Your task to perform on an android device: Search for Italian restaurants on Maps Image 0: 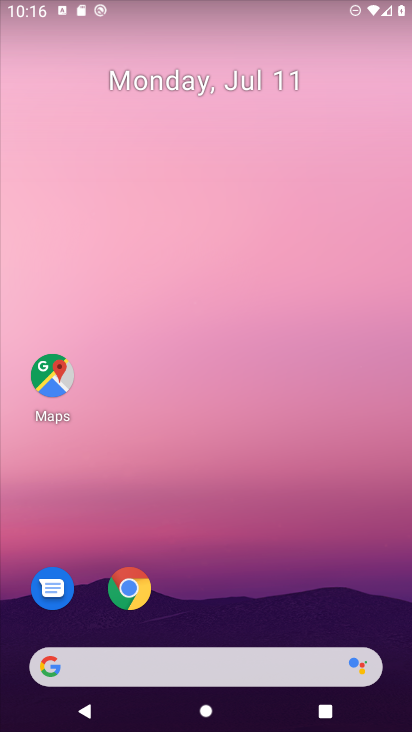
Step 0: drag from (396, 668) to (182, 27)
Your task to perform on an android device: Search for Italian restaurants on Maps Image 1: 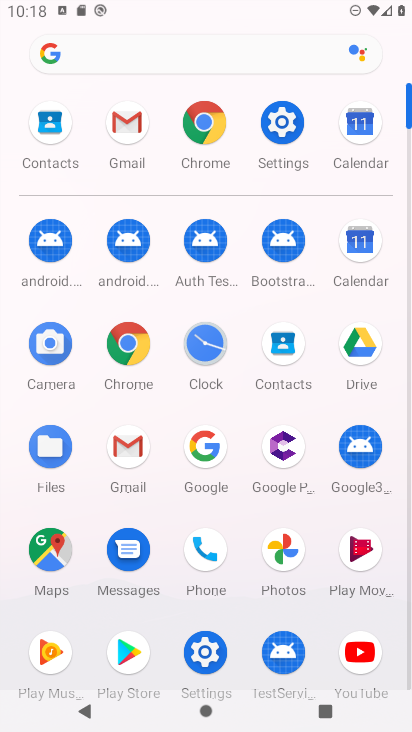
Step 1: click (44, 560)
Your task to perform on an android device: Search for Italian restaurants on Maps Image 2: 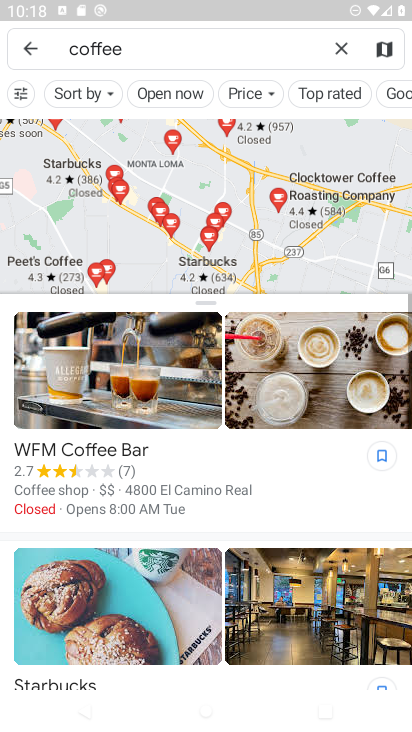
Step 2: click (337, 47)
Your task to perform on an android device: Search for Italian restaurants on Maps Image 3: 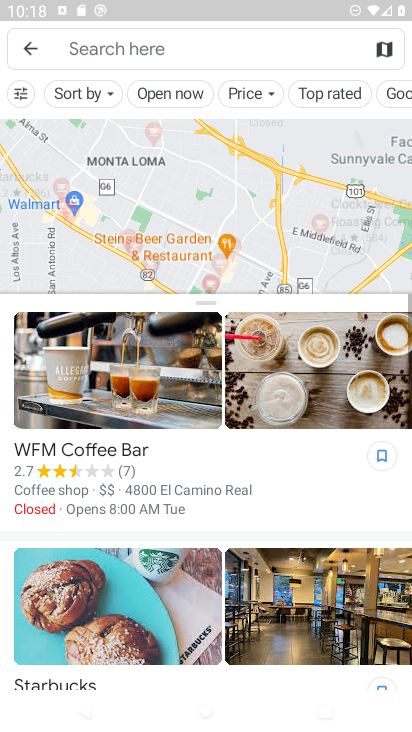
Step 3: click (125, 52)
Your task to perform on an android device: Search for Italian restaurants on Maps Image 4: 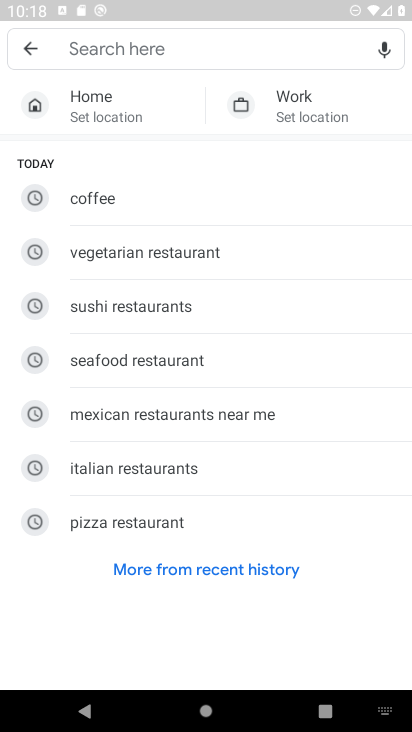
Step 4: click (105, 476)
Your task to perform on an android device: Search for Italian restaurants on Maps Image 5: 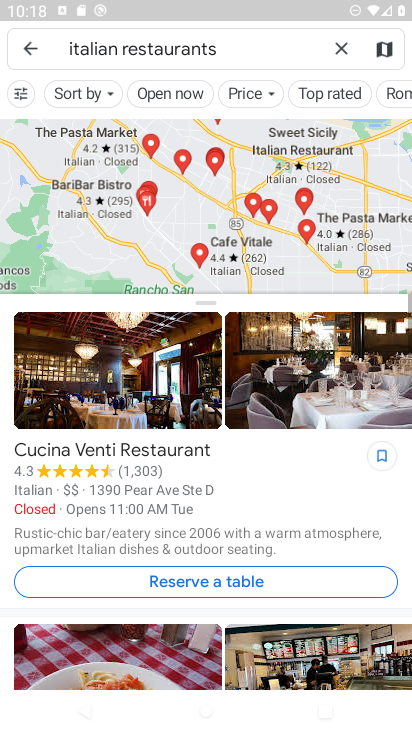
Step 5: task complete